Your task to perform on an android device: Turn off the flashlight Image 0: 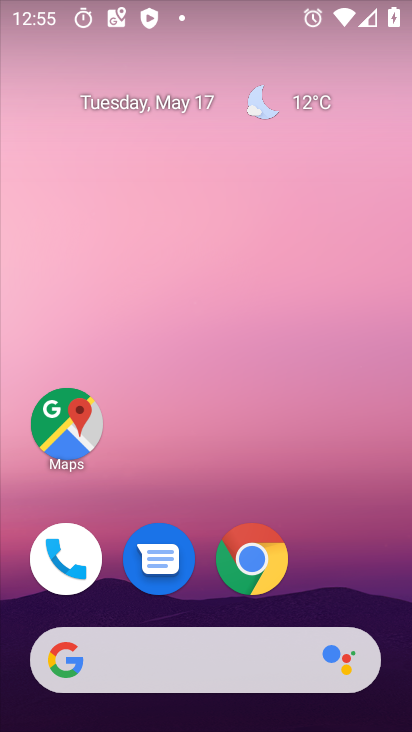
Step 0: drag from (306, 6) to (363, 565)
Your task to perform on an android device: Turn off the flashlight Image 1: 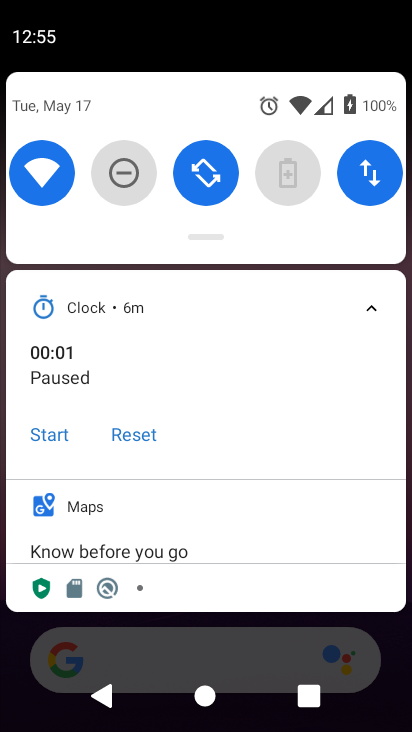
Step 1: task complete